Your task to perform on an android device: Open Amazon Image 0: 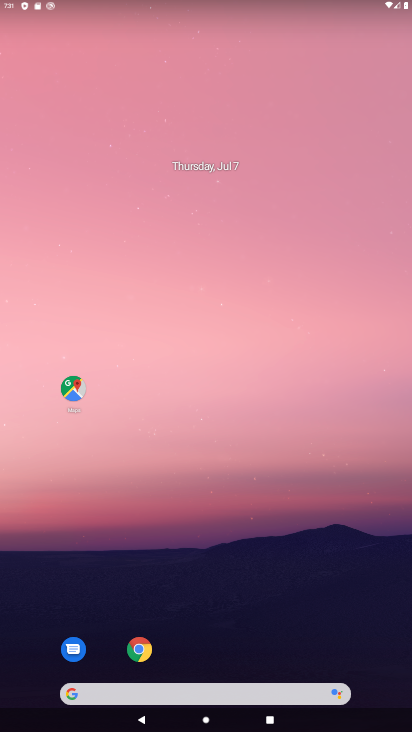
Step 0: press home button
Your task to perform on an android device: Open Amazon Image 1: 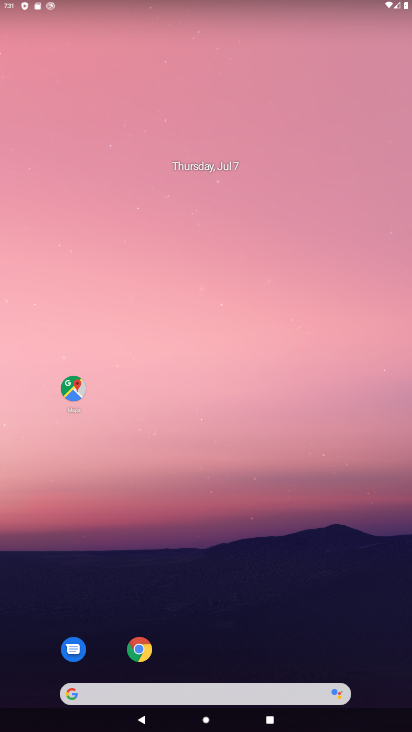
Step 1: click (136, 646)
Your task to perform on an android device: Open Amazon Image 2: 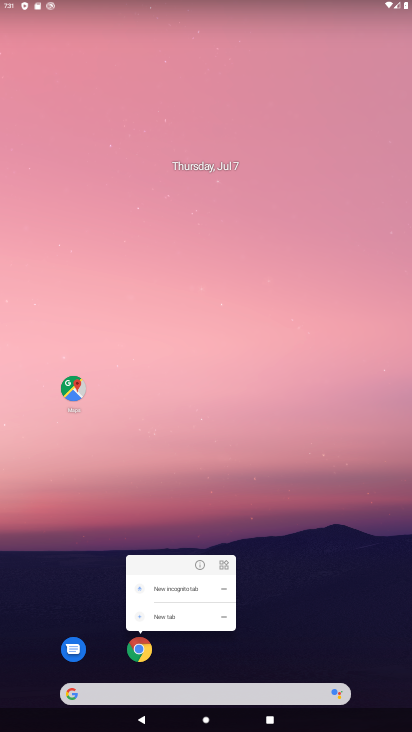
Step 2: click (136, 646)
Your task to perform on an android device: Open Amazon Image 3: 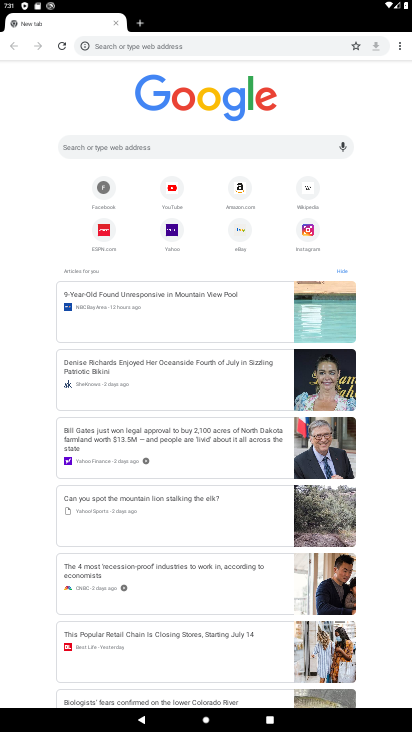
Step 3: click (241, 187)
Your task to perform on an android device: Open Amazon Image 4: 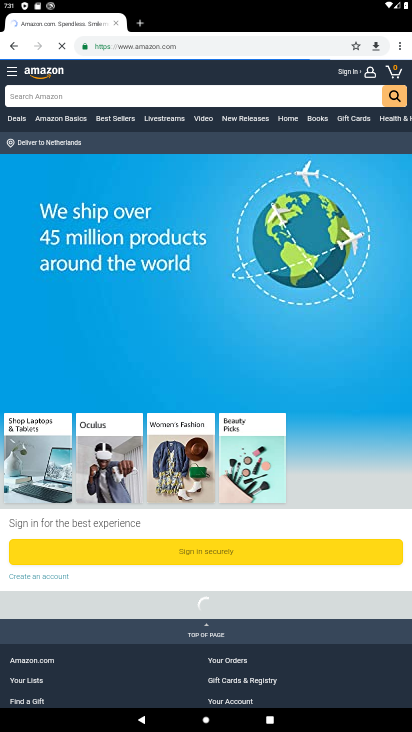
Step 4: task complete